Your task to perform on an android device: Open location settings Image 0: 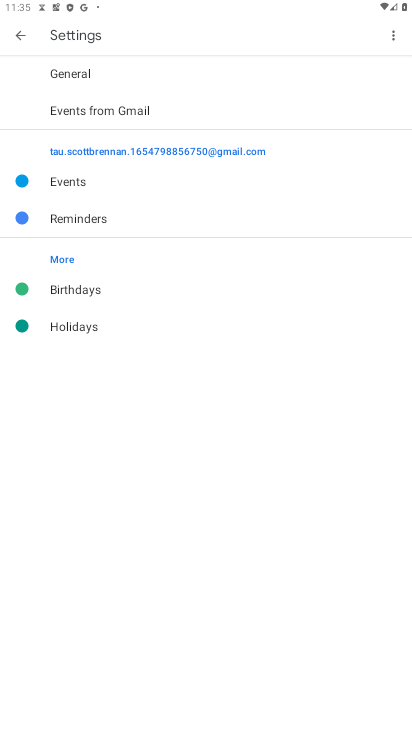
Step 0: press home button
Your task to perform on an android device: Open location settings Image 1: 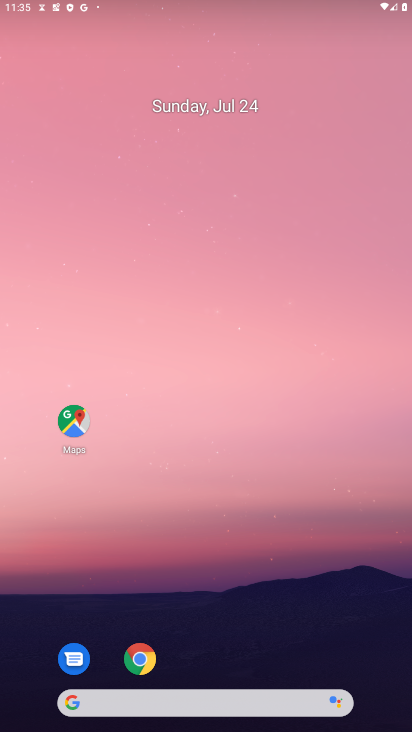
Step 1: drag from (178, 667) to (181, 283)
Your task to perform on an android device: Open location settings Image 2: 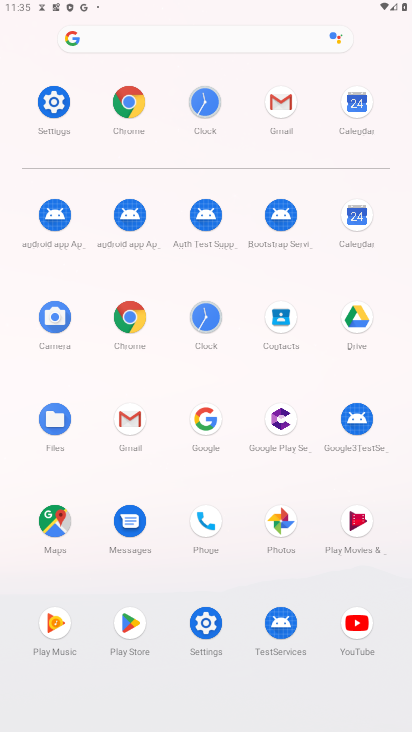
Step 2: click (56, 86)
Your task to perform on an android device: Open location settings Image 3: 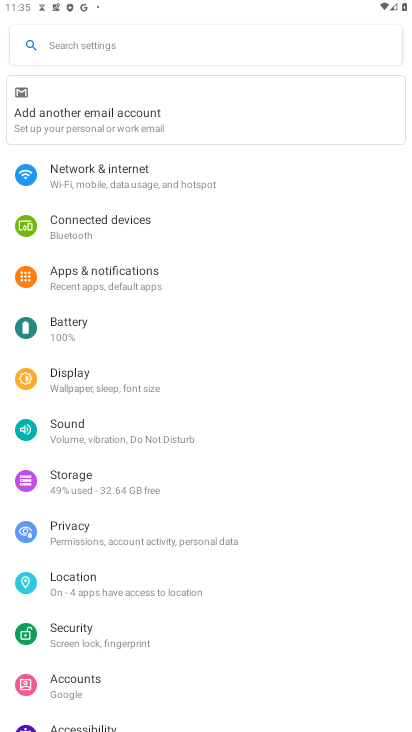
Step 3: click (258, 202)
Your task to perform on an android device: Open location settings Image 4: 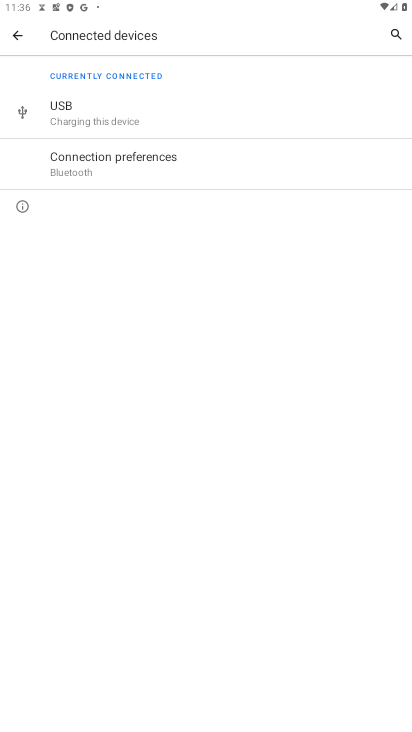
Step 4: press home button
Your task to perform on an android device: Open location settings Image 5: 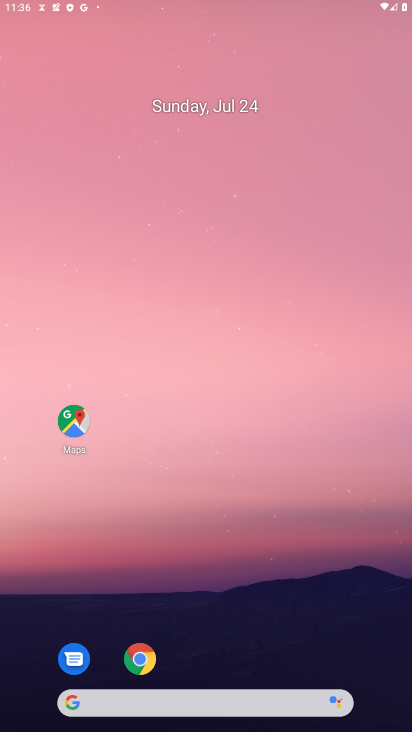
Step 5: drag from (274, 643) to (254, 186)
Your task to perform on an android device: Open location settings Image 6: 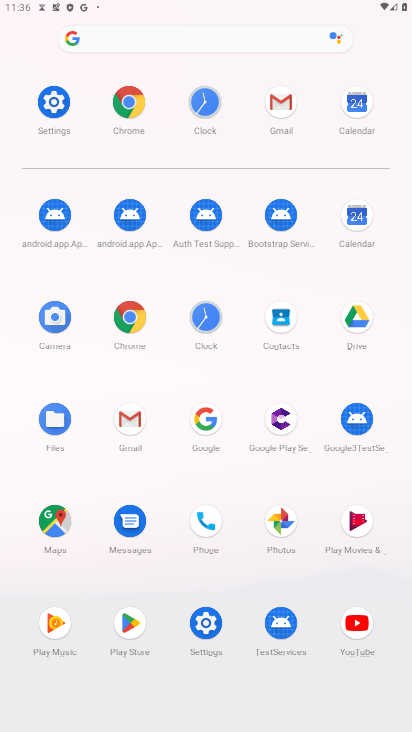
Step 6: click (44, 78)
Your task to perform on an android device: Open location settings Image 7: 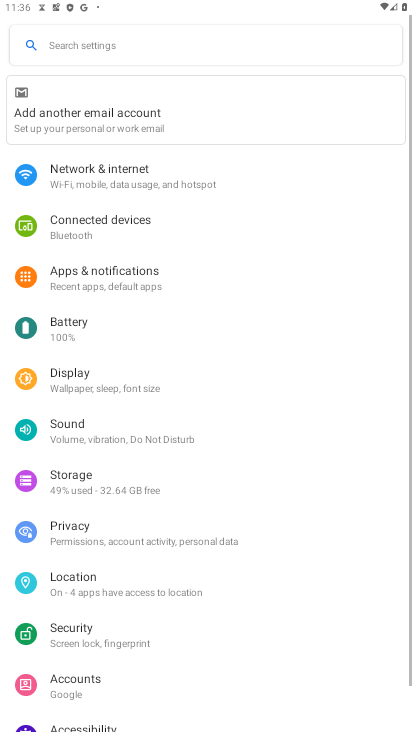
Step 7: drag from (58, 119) to (162, 552)
Your task to perform on an android device: Open location settings Image 8: 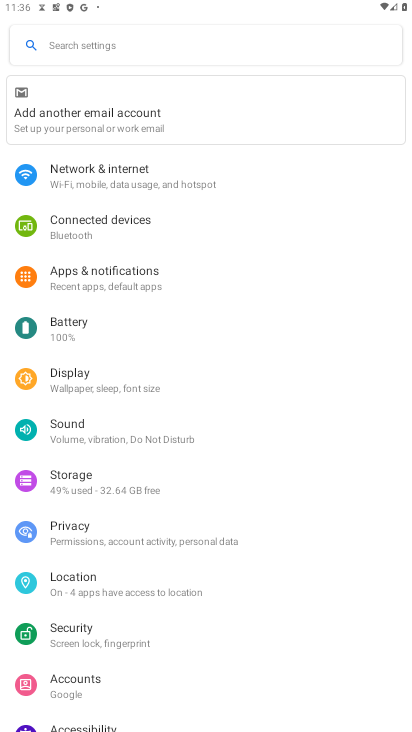
Step 8: click (79, 576)
Your task to perform on an android device: Open location settings Image 9: 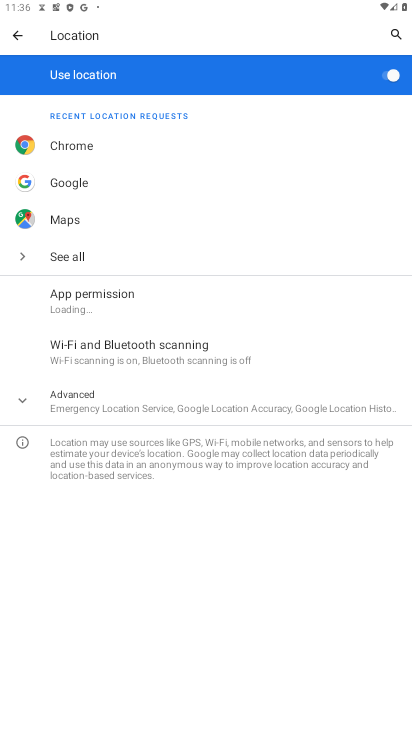
Step 9: task complete